Your task to perform on an android device: turn on notifications settings in the gmail app Image 0: 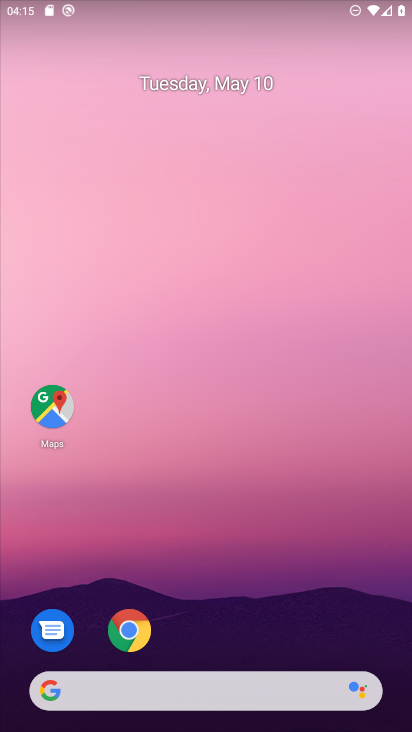
Step 0: drag from (209, 634) to (246, 51)
Your task to perform on an android device: turn on notifications settings in the gmail app Image 1: 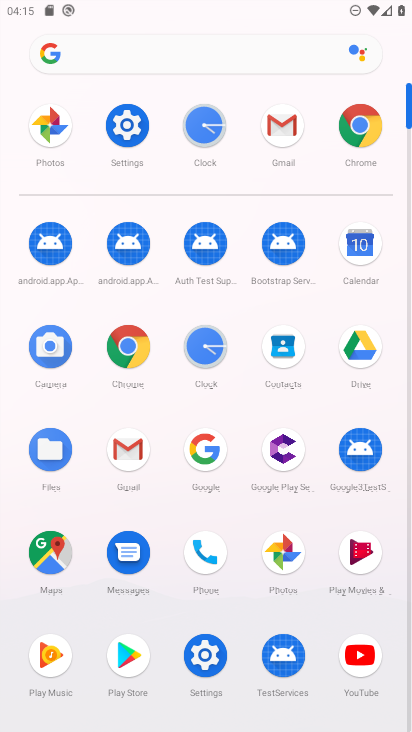
Step 1: click (123, 129)
Your task to perform on an android device: turn on notifications settings in the gmail app Image 2: 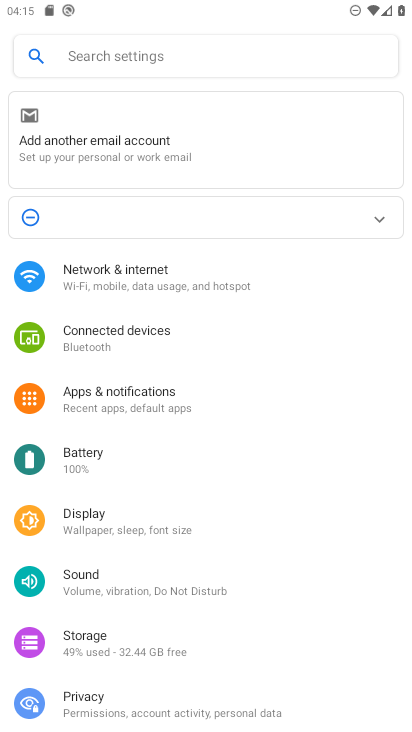
Step 2: click (163, 409)
Your task to perform on an android device: turn on notifications settings in the gmail app Image 3: 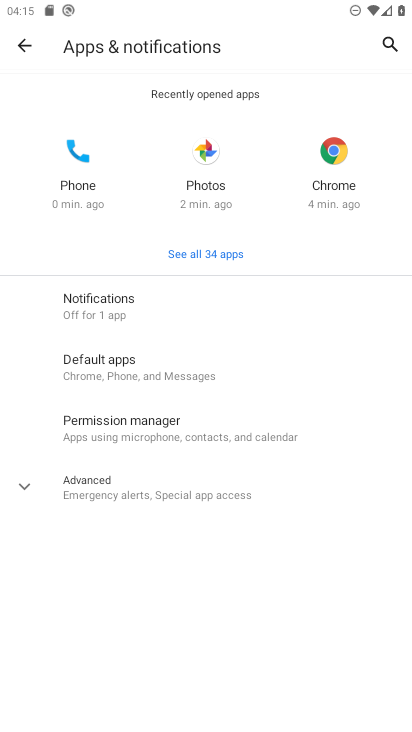
Step 3: click (217, 243)
Your task to perform on an android device: turn on notifications settings in the gmail app Image 4: 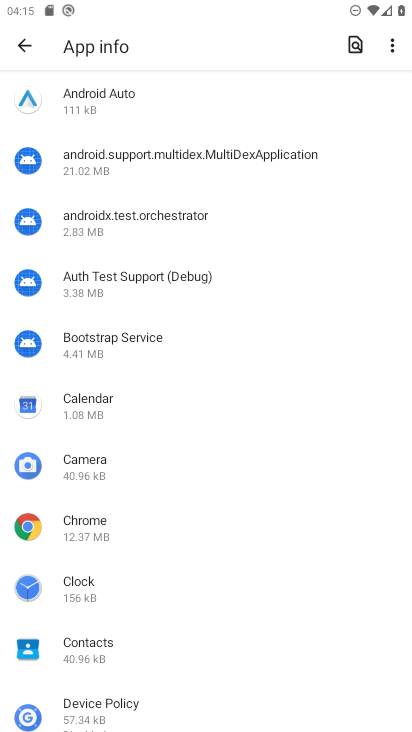
Step 4: drag from (166, 659) to (185, 148)
Your task to perform on an android device: turn on notifications settings in the gmail app Image 5: 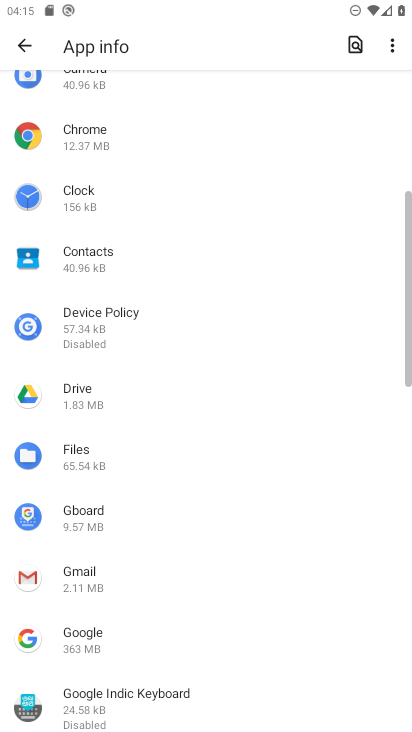
Step 5: click (99, 577)
Your task to perform on an android device: turn on notifications settings in the gmail app Image 6: 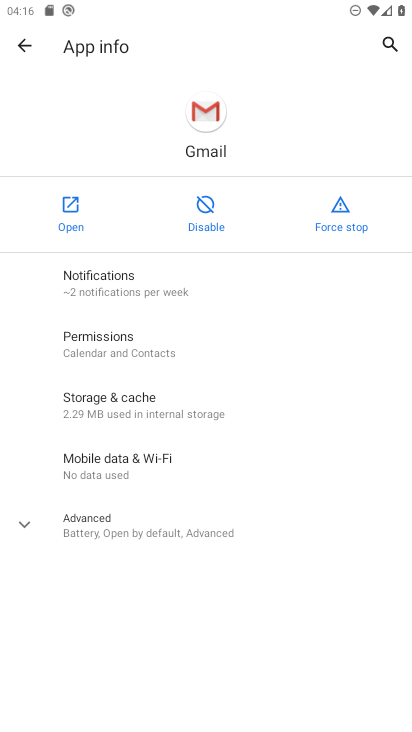
Step 6: click (211, 268)
Your task to perform on an android device: turn on notifications settings in the gmail app Image 7: 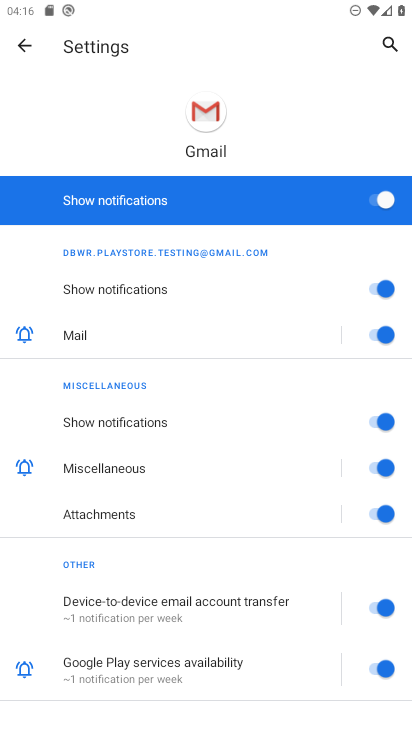
Step 7: task complete